Your task to perform on an android device: turn off improve location accuracy Image 0: 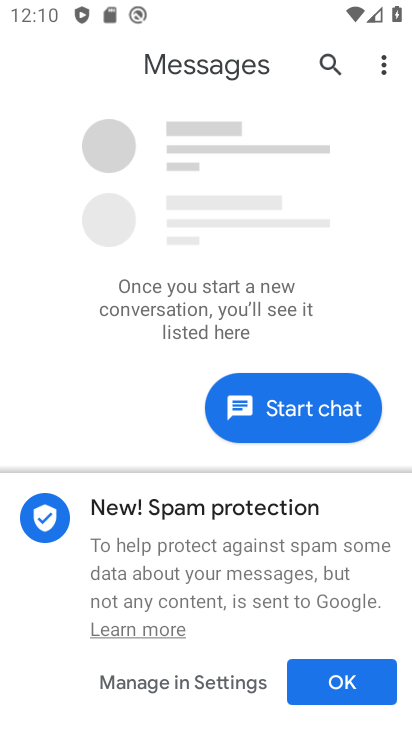
Step 0: press home button
Your task to perform on an android device: turn off improve location accuracy Image 1: 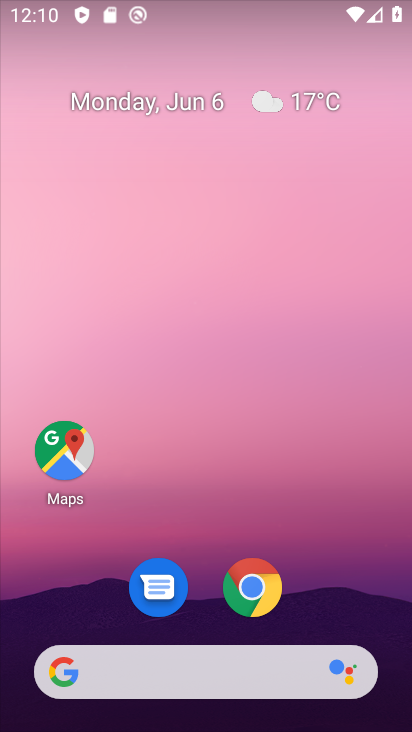
Step 1: drag from (379, 614) to (300, 10)
Your task to perform on an android device: turn off improve location accuracy Image 2: 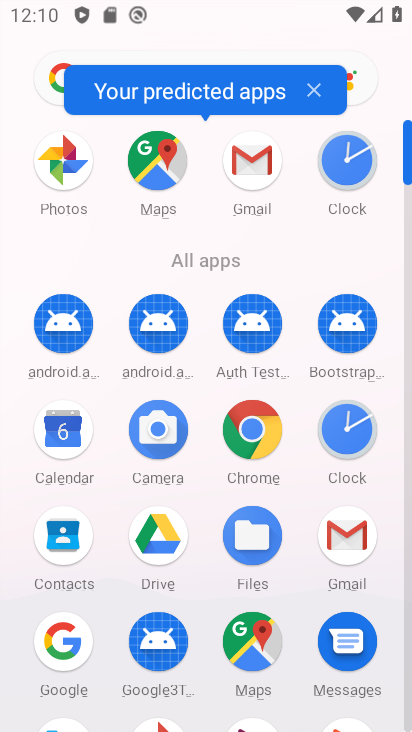
Step 2: click (408, 704)
Your task to perform on an android device: turn off improve location accuracy Image 3: 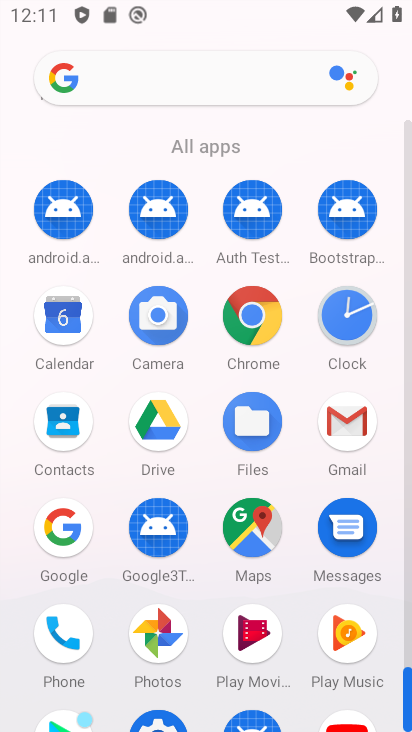
Step 3: click (161, 721)
Your task to perform on an android device: turn off improve location accuracy Image 4: 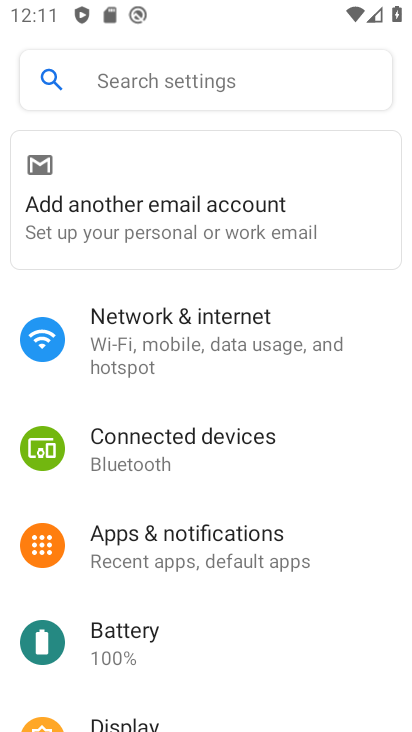
Step 4: drag from (225, 693) to (192, 352)
Your task to perform on an android device: turn off improve location accuracy Image 5: 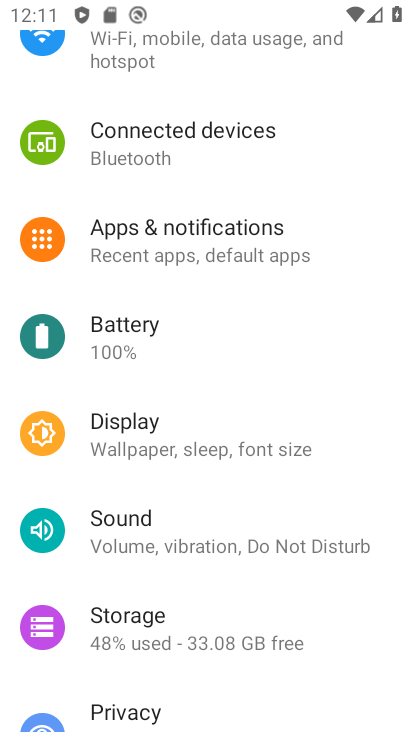
Step 5: drag from (192, 352) to (186, 139)
Your task to perform on an android device: turn off improve location accuracy Image 6: 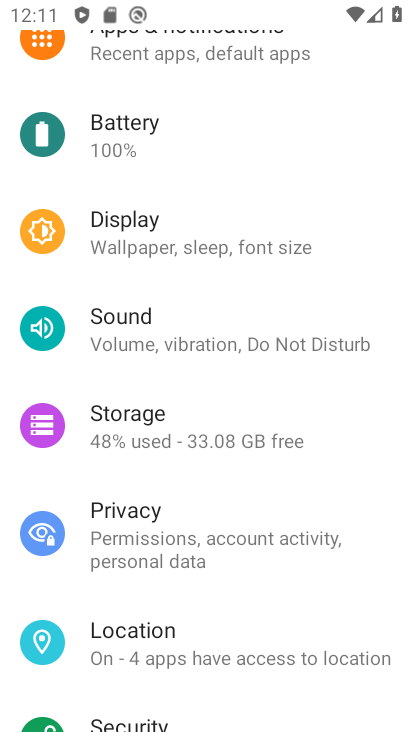
Step 6: click (216, 637)
Your task to perform on an android device: turn off improve location accuracy Image 7: 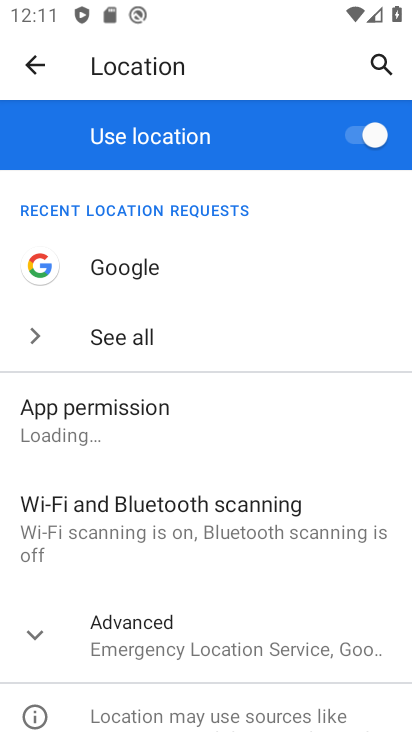
Step 7: drag from (251, 672) to (222, 352)
Your task to perform on an android device: turn off improve location accuracy Image 8: 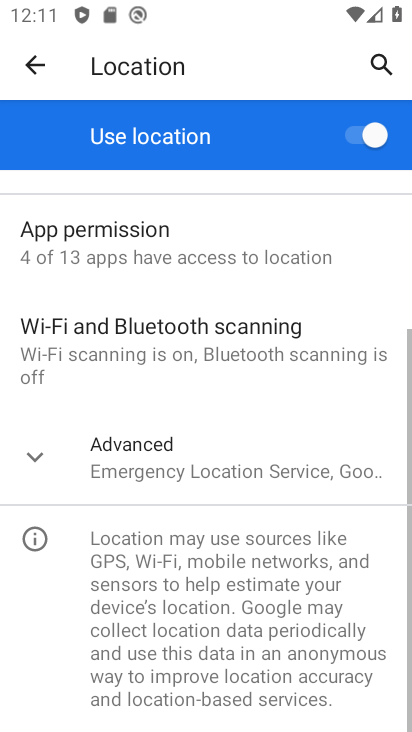
Step 8: click (253, 461)
Your task to perform on an android device: turn off improve location accuracy Image 9: 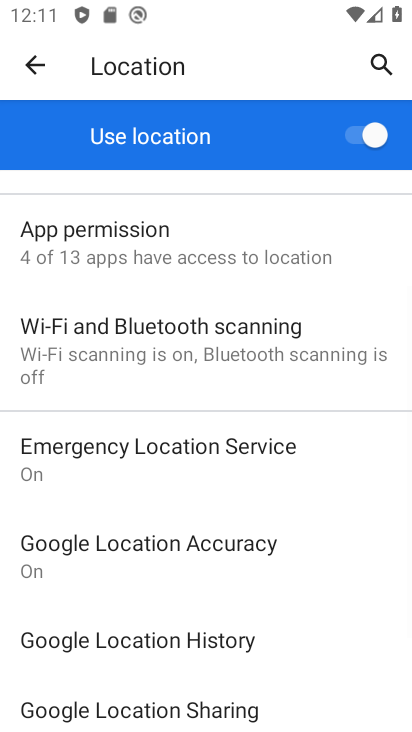
Step 9: click (262, 540)
Your task to perform on an android device: turn off improve location accuracy Image 10: 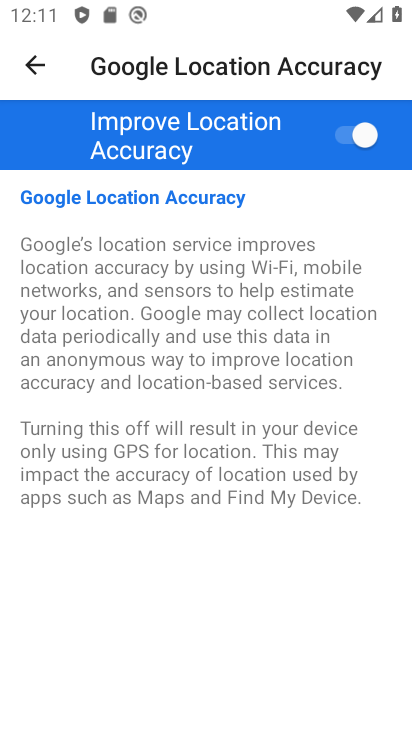
Step 10: click (346, 140)
Your task to perform on an android device: turn off improve location accuracy Image 11: 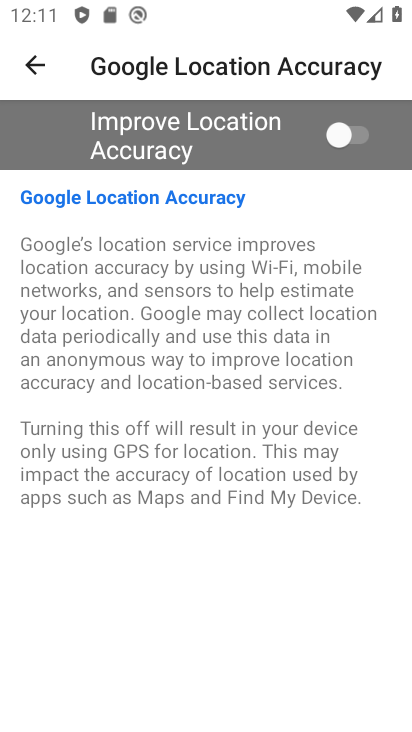
Step 11: task complete